Your task to perform on an android device: Show me popular videos on Youtube Image 0: 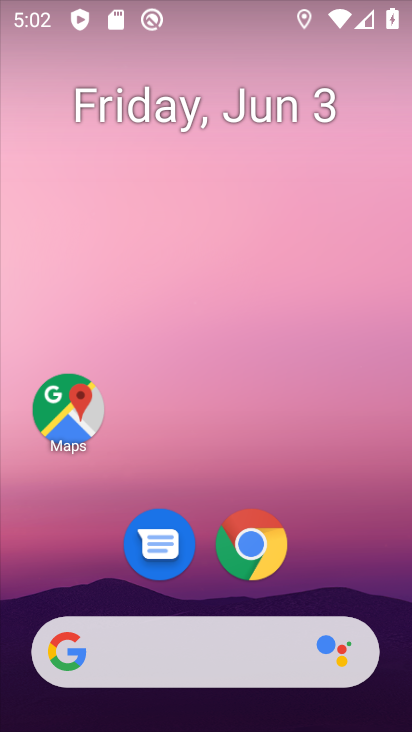
Step 0: drag from (329, 499) to (316, 125)
Your task to perform on an android device: Show me popular videos on Youtube Image 1: 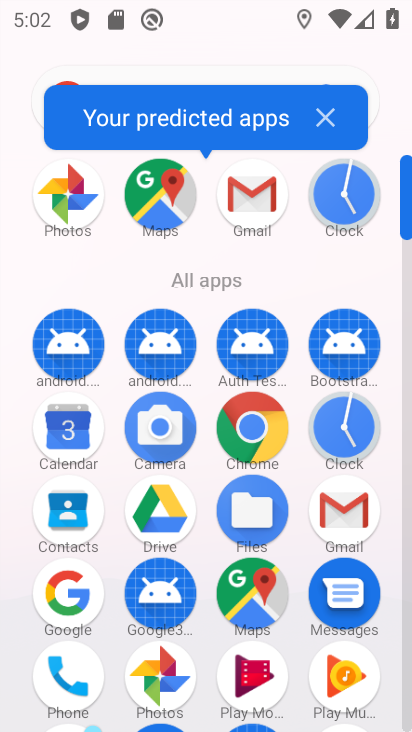
Step 1: drag from (291, 485) to (251, 74)
Your task to perform on an android device: Show me popular videos on Youtube Image 2: 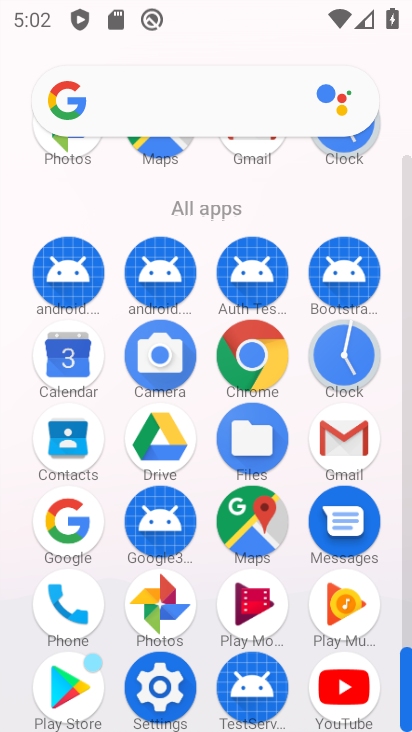
Step 2: click (347, 690)
Your task to perform on an android device: Show me popular videos on Youtube Image 3: 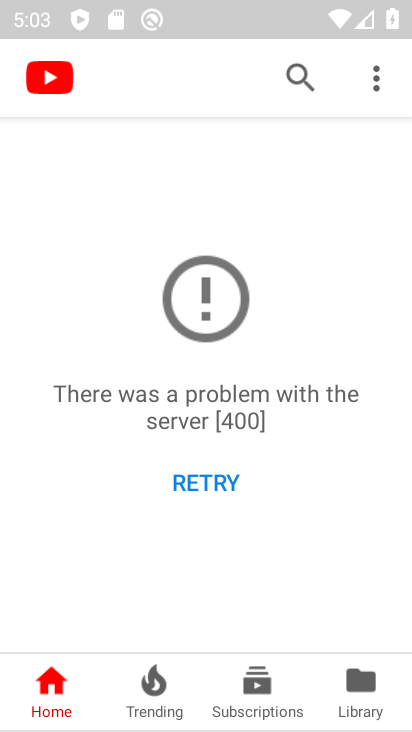
Step 3: task complete